Your task to perform on an android device: add a contact in the contacts app Image 0: 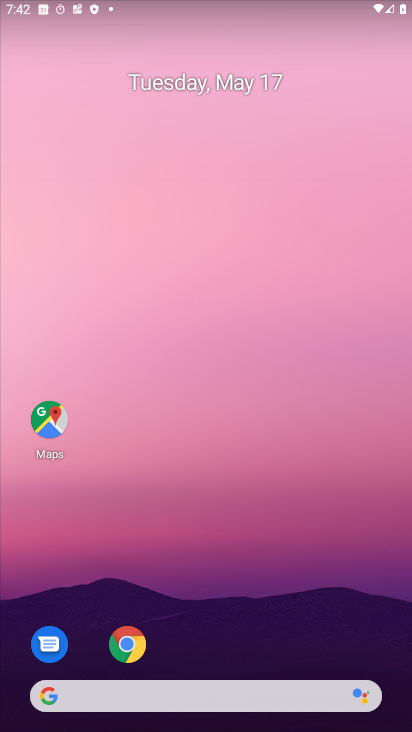
Step 0: drag from (328, 627) to (149, 87)
Your task to perform on an android device: add a contact in the contacts app Image 1: 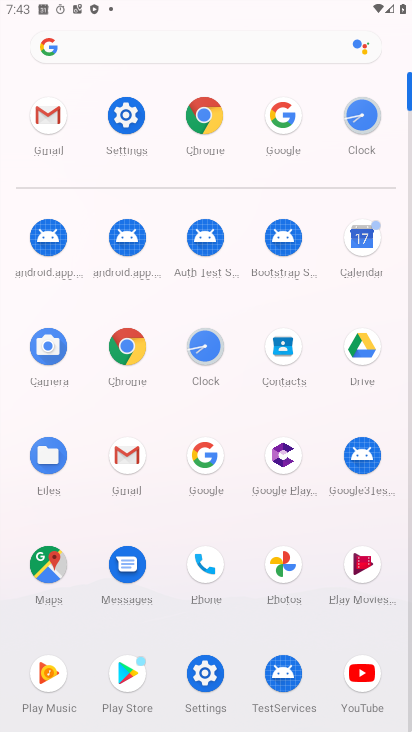
Step 1: click (285, 348)
Your task to perform on an android device: add a contact in the contacts app Image 2: 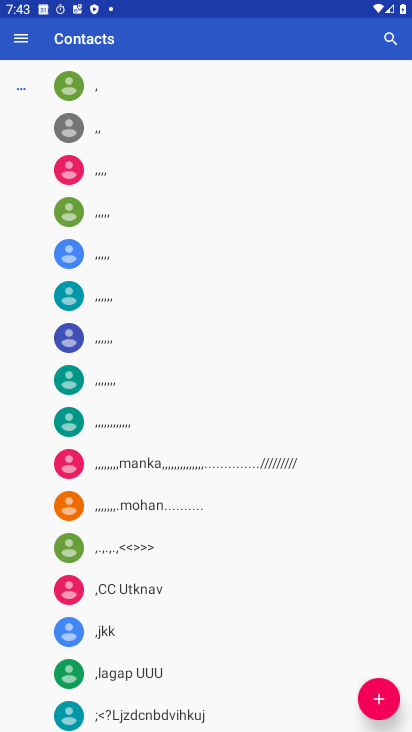
Step 2: click (383, 694)
Your task to perform on an android device: add a contact in the contacts app Image 3: 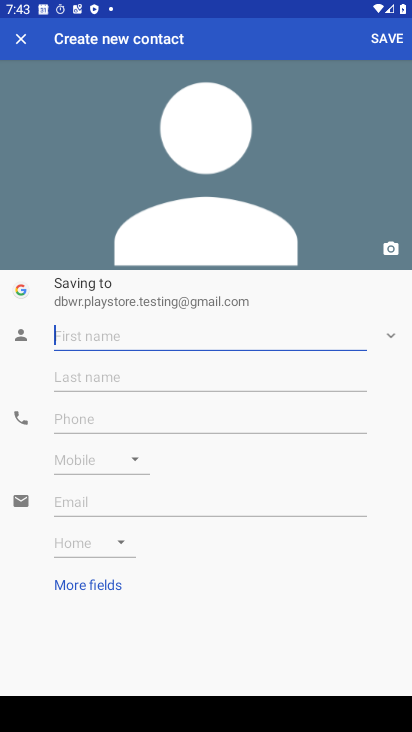
Step 3: type "veer"
Your task to perform on an android device: add a contact in the contacts app Image 4: 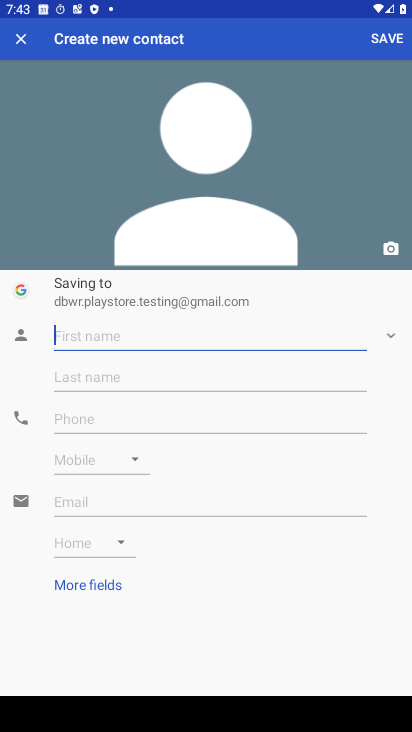
Step 4: click (363, 41)
Your task to perform on an android device: add a contact in the contacts app Image 5: 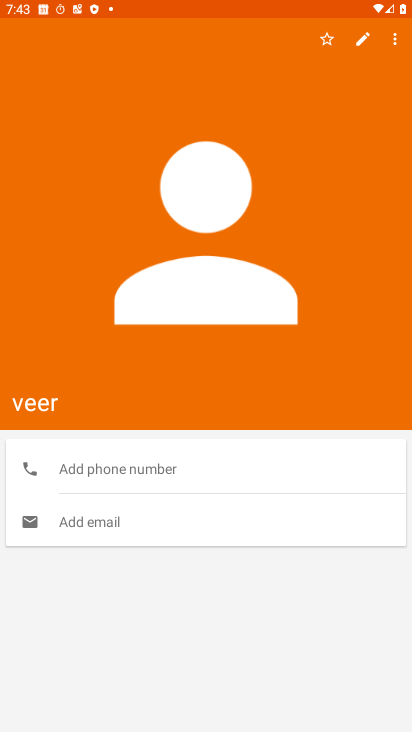
Step 5: task complete